Your task to perform on an android device: Open Amazon Image 0: 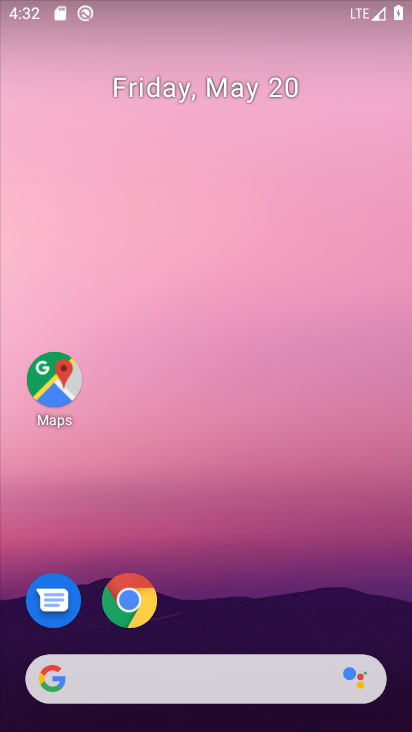
Step 0: click (122, 603)
Your task to perform on an android device: Open Amazon Image 1: 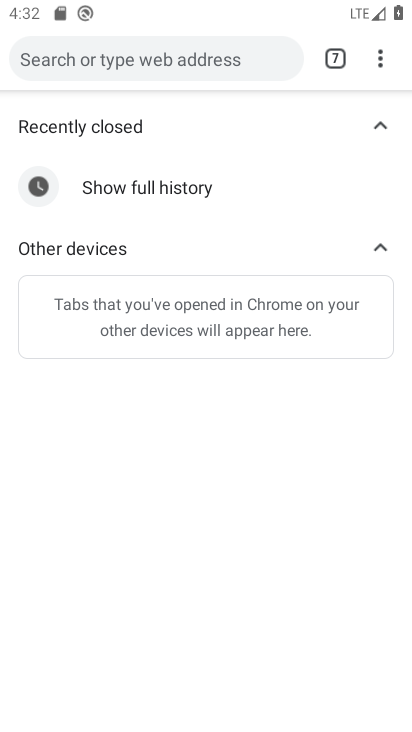
Step 1: click (335, 61)
Your task to perform on an android device: Open Amazon Image 2: 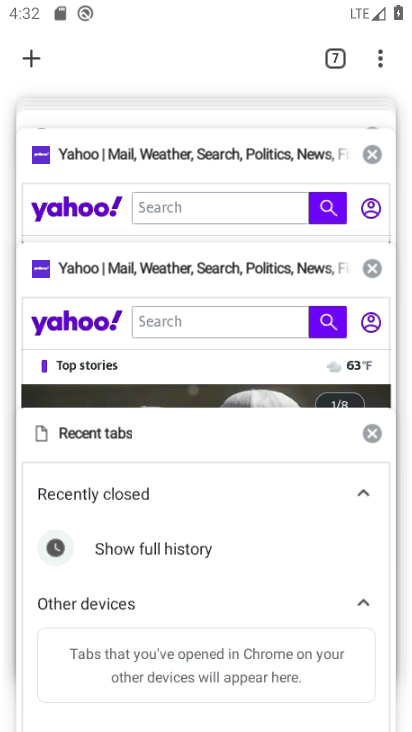
Step 2: drag from (198, 161) to (203, 629)
Your task to perform on an android device: Open Amazon Image 3: 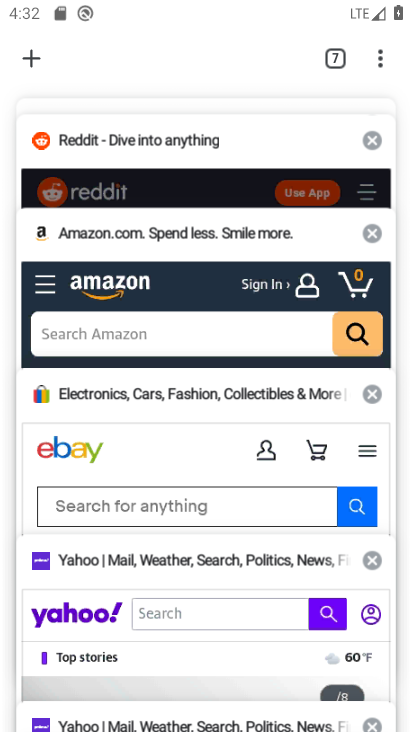
Step 3: click (156, 284)
Your task to perform on an android device: Open Amazon Image 4: 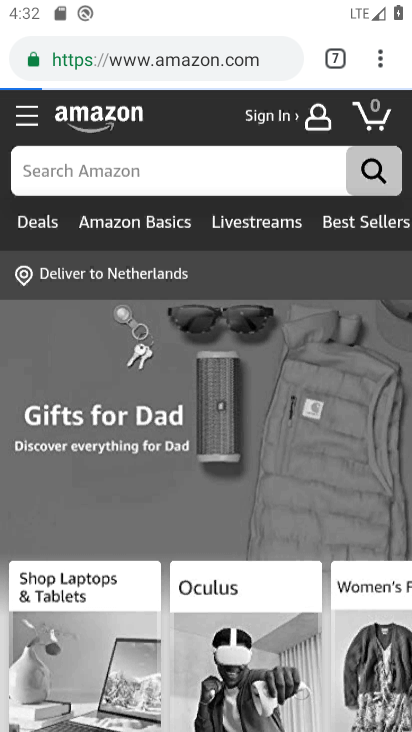
Step 4: task complete